Your task to perform on an android device: turn notification dots on Image 0: 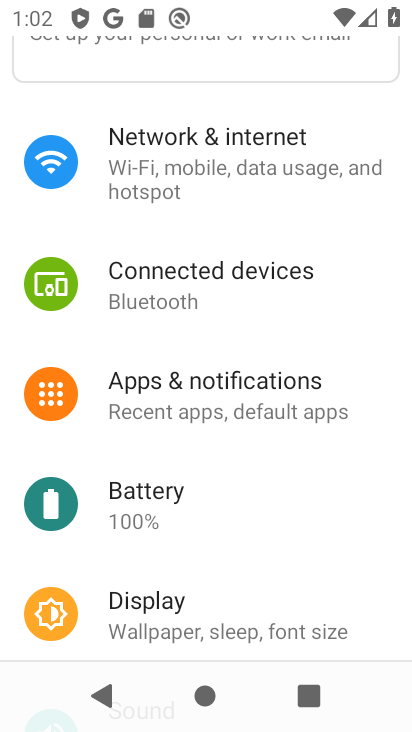
Step 0: press home button
Your task to perform on an android device: turn notification dots on Image 1: 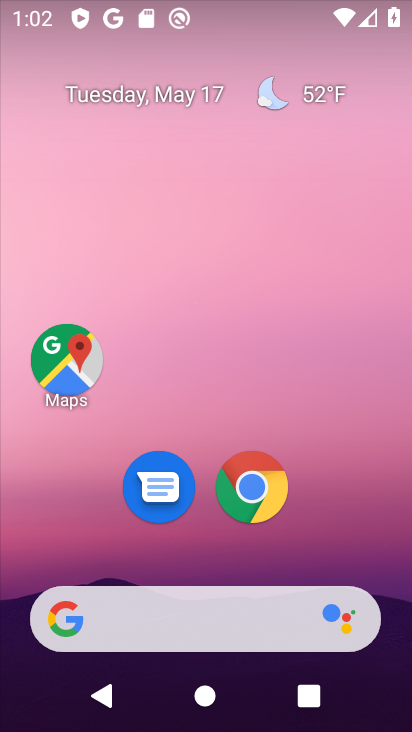
Step 1: drag from (329, 537) to (275, 4)
Your task to perform on an android device: turn notification dots on Image 2: 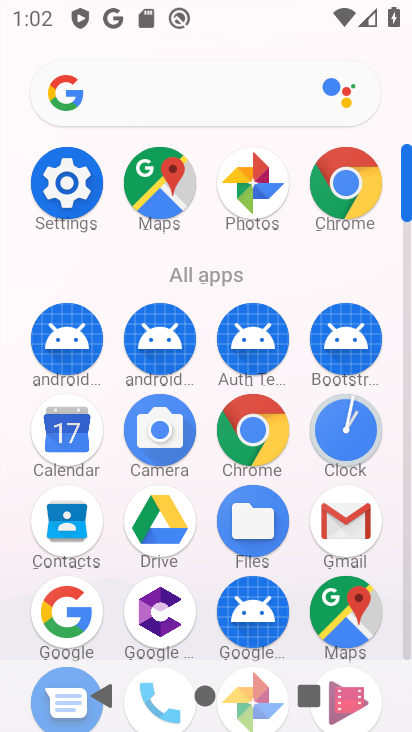
Step 2: click (404, 659)
Your task to perform on an android device: turn notification dots on Image 3: 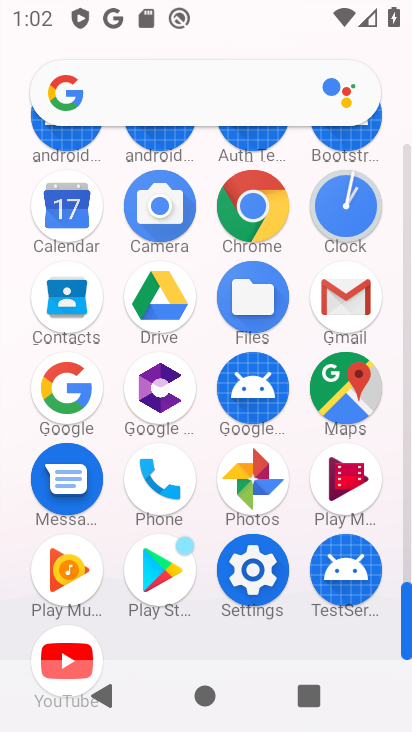
Step 3: click (241, 594)
Your task to perform on an android device: turn notification dots on Image 4: 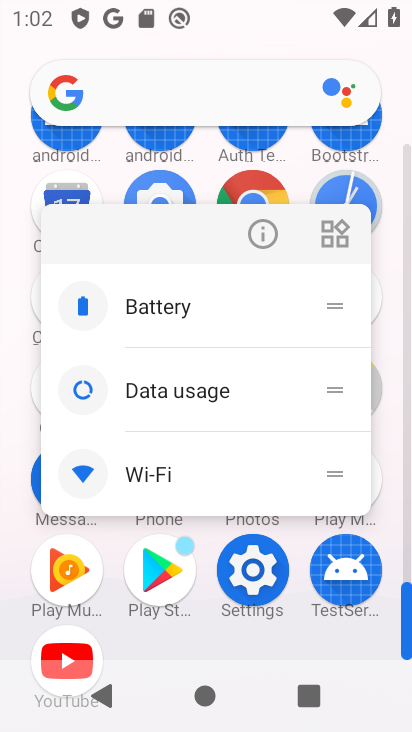
Step 4: click (241, 594)
Your task to perform on an android device: turn notification dots on Image 5: 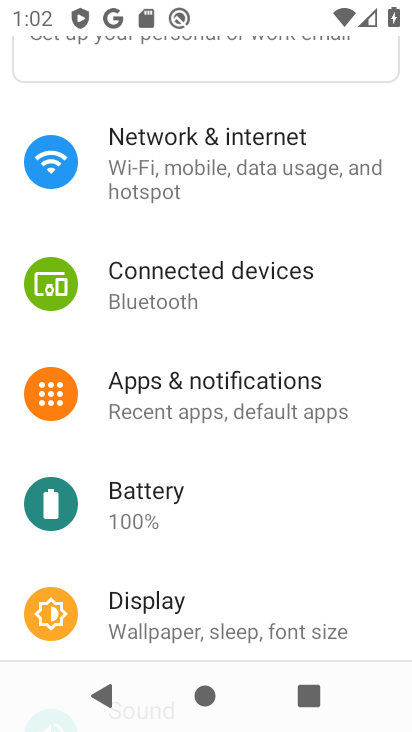
Step 5: click (239, 441)
Your task to perform on an android device: turn notification dots on Image 6: 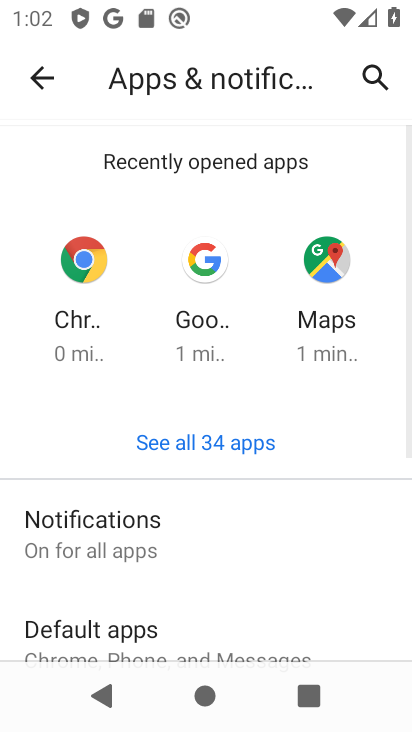
Step 6: click (188, 567)
Your task to perform on an android device: turn notification dots on Image 7: 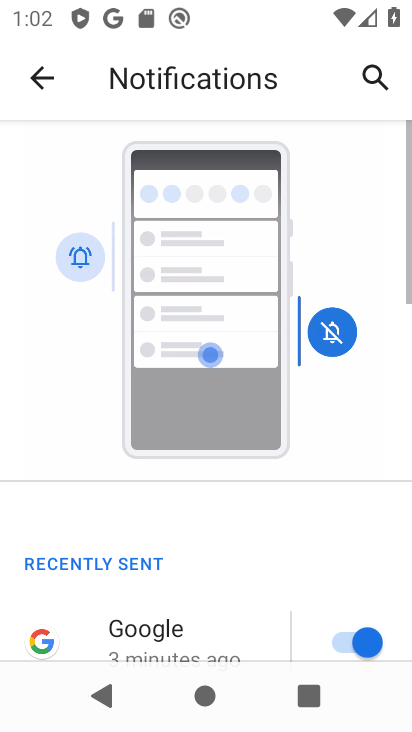
Step 7: drag from (188, 567) to (163, 67)
Your task to perform on an android device: turn notification dots on Image 8: 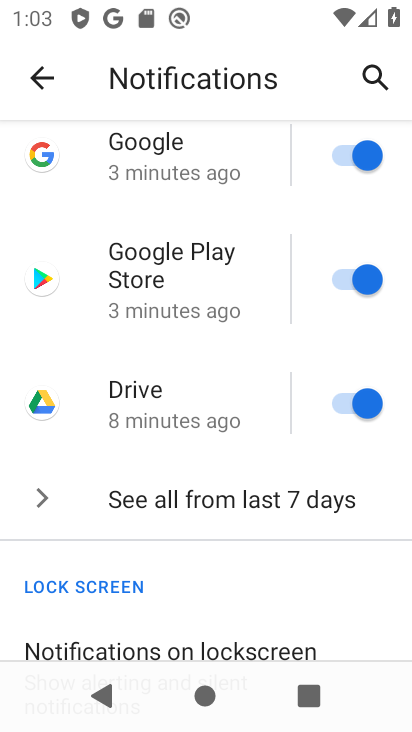
Step 8: drag from (225, 594) to (194, 371)
Your task to perform on an android device: turn notification dots on Image 9: 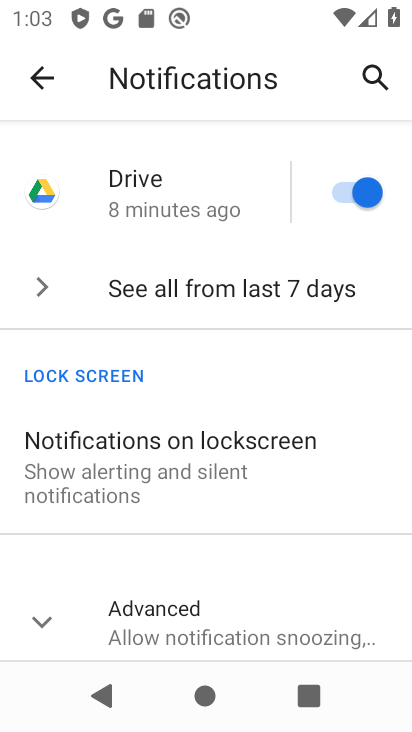
Step 9: drag from (175, 607) to (167, 484)
Your task to perform on an android device: turn notification dots on Image 10: 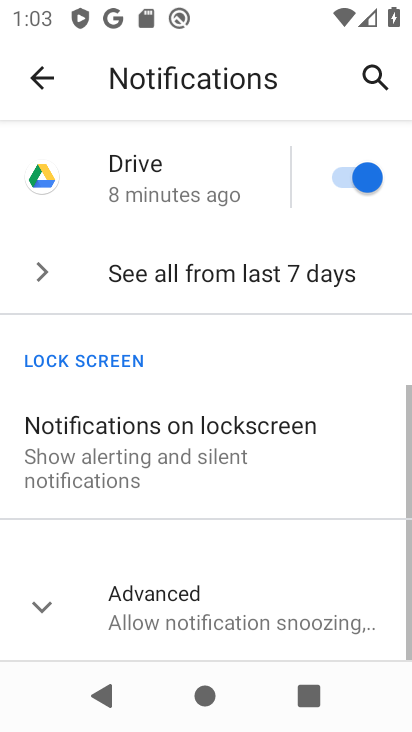
Step 10: click (234, 602)
Your task to perform on an android device: turn notification dots on Image 11: 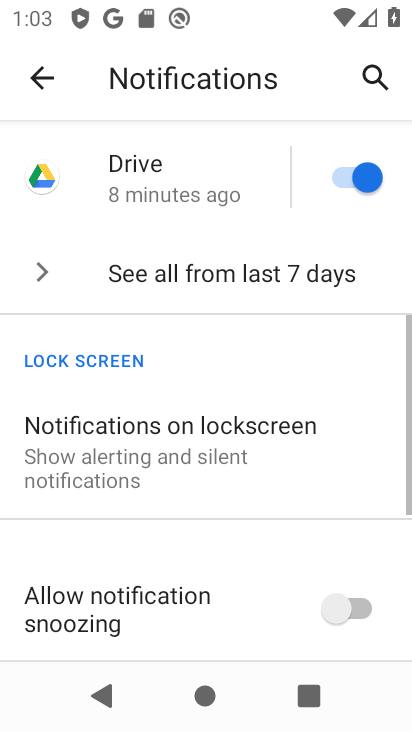
Step 11: task complete